Your task to perform on an android device: Search for "macbook pro" on walmart, select the first entry, and add it to the cart. Image 0: 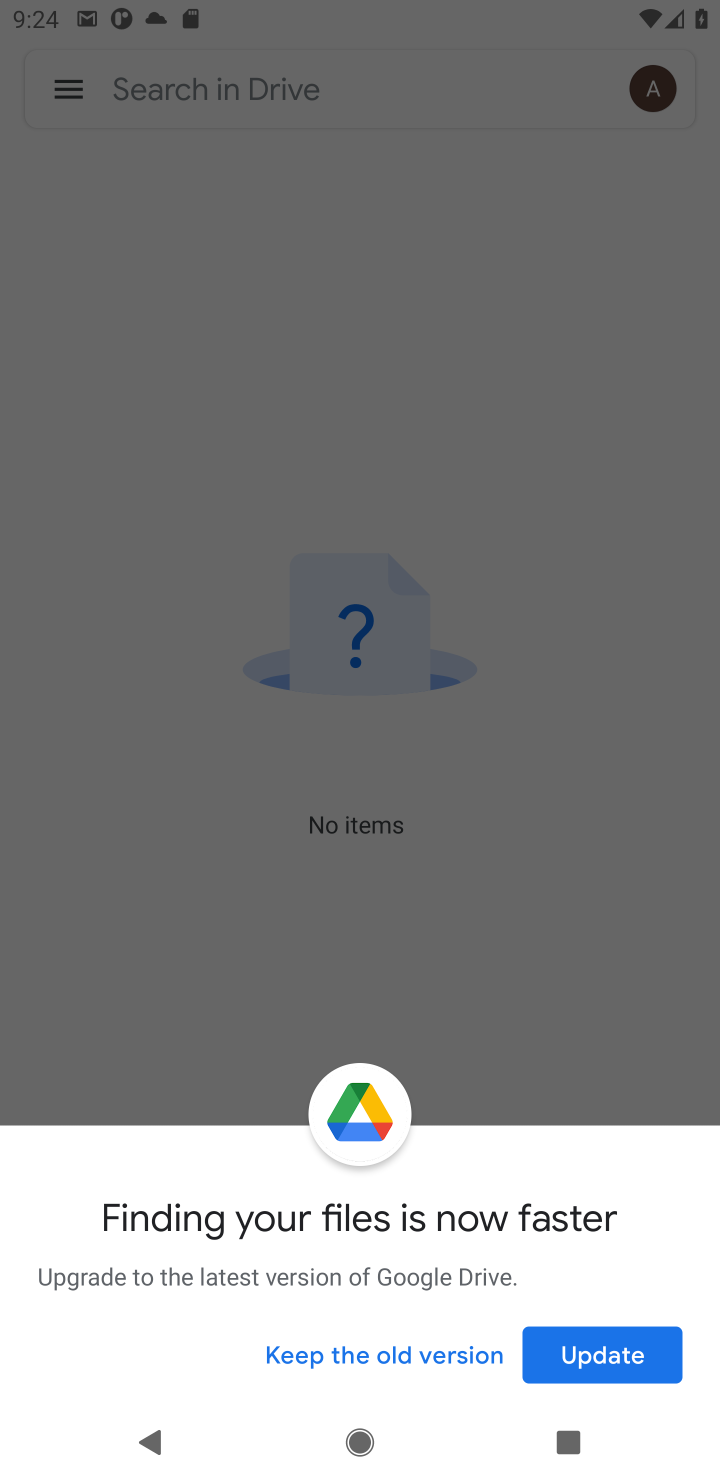
Step 0: press home button
Your task to perform on an android device: Search for "macbook pro" on walmart, select the first entry, and add it to the cart. Image 1: 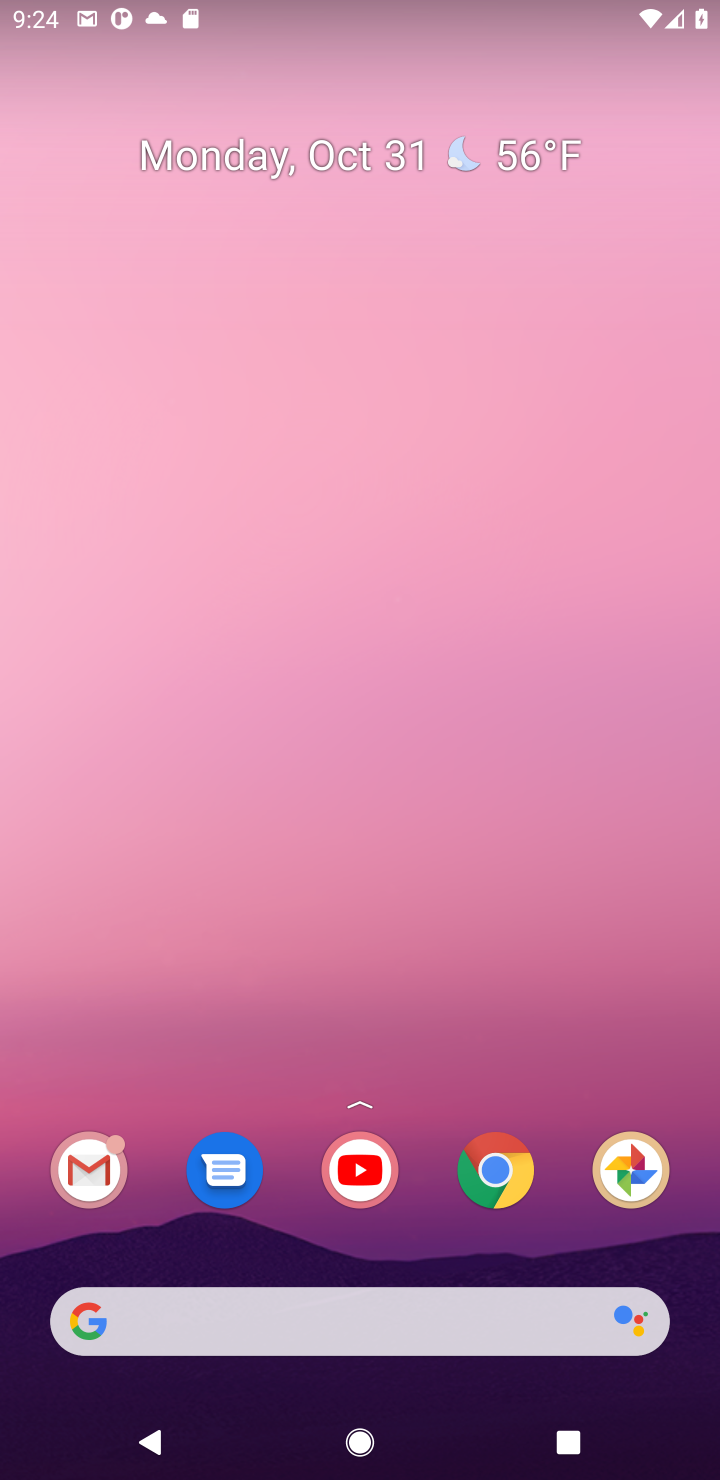
Step 1: click (488, 1165)
Your task to perform on an android device: Search for "macbook pro" on walmart, select the first entry, and add it to the cart. Image 2: 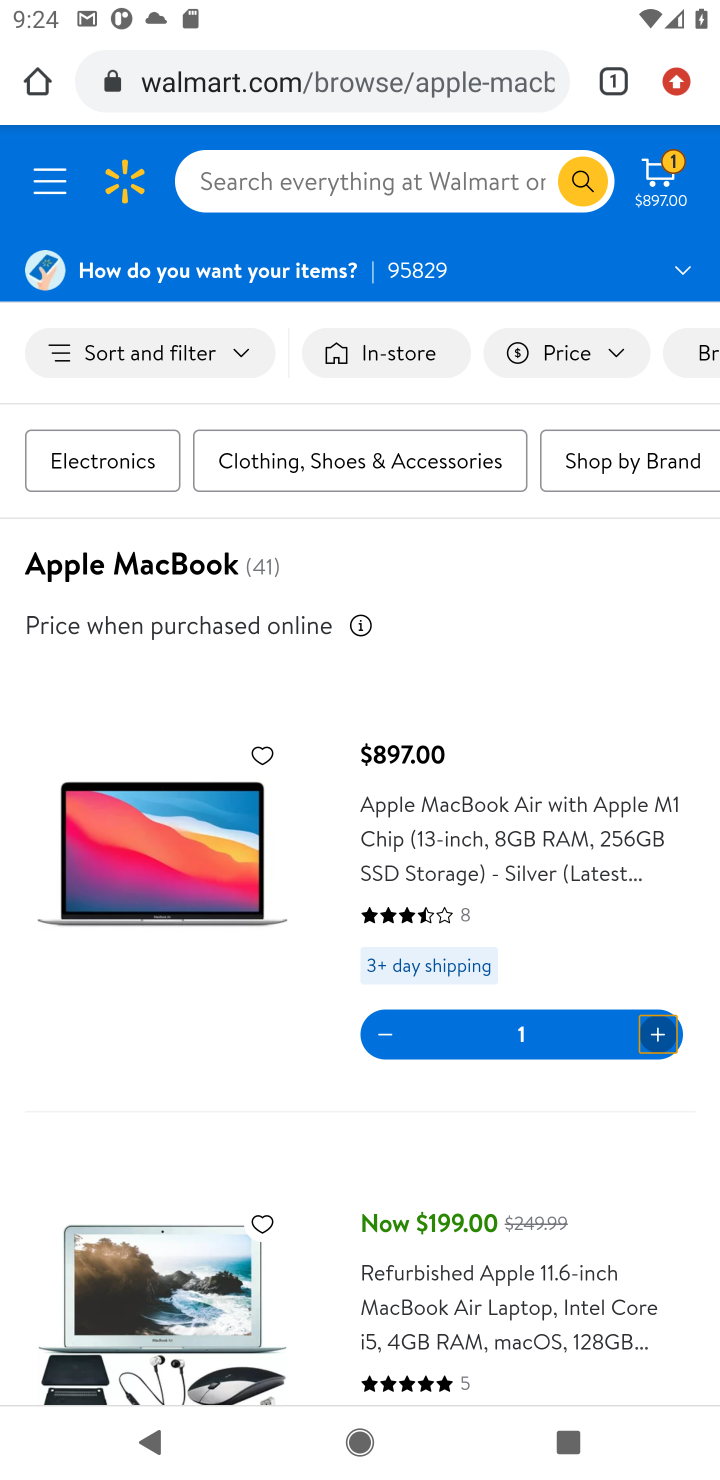
Step 2: click (248, 161)
Your task to perform on an android device: Search for "macbook pro" on walmart, select the first entry, and add it to the cart. Image 3: 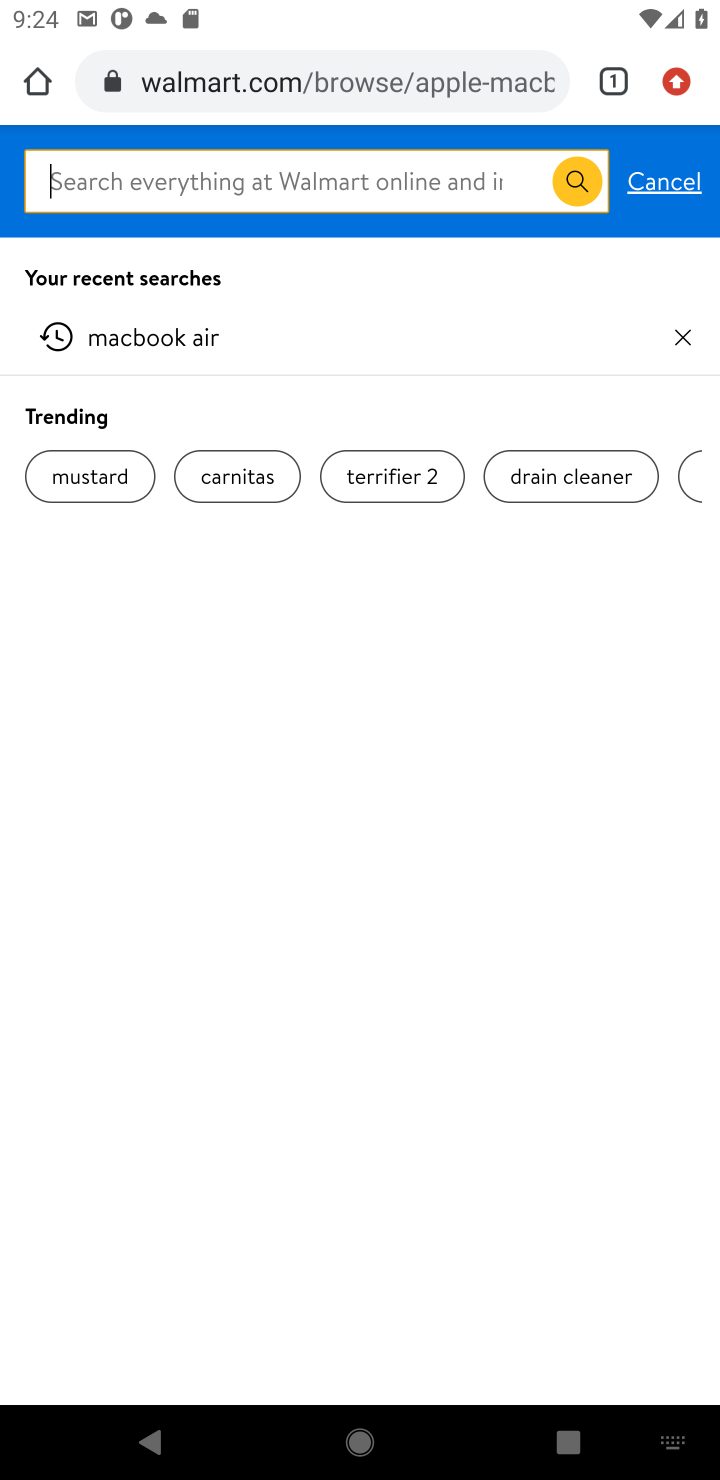
Step 3: type "macbook pro"
Your task to perform on an android device: Search for "macbook pro" on walmart, select the first entry, and add it to the cart. Image 4: 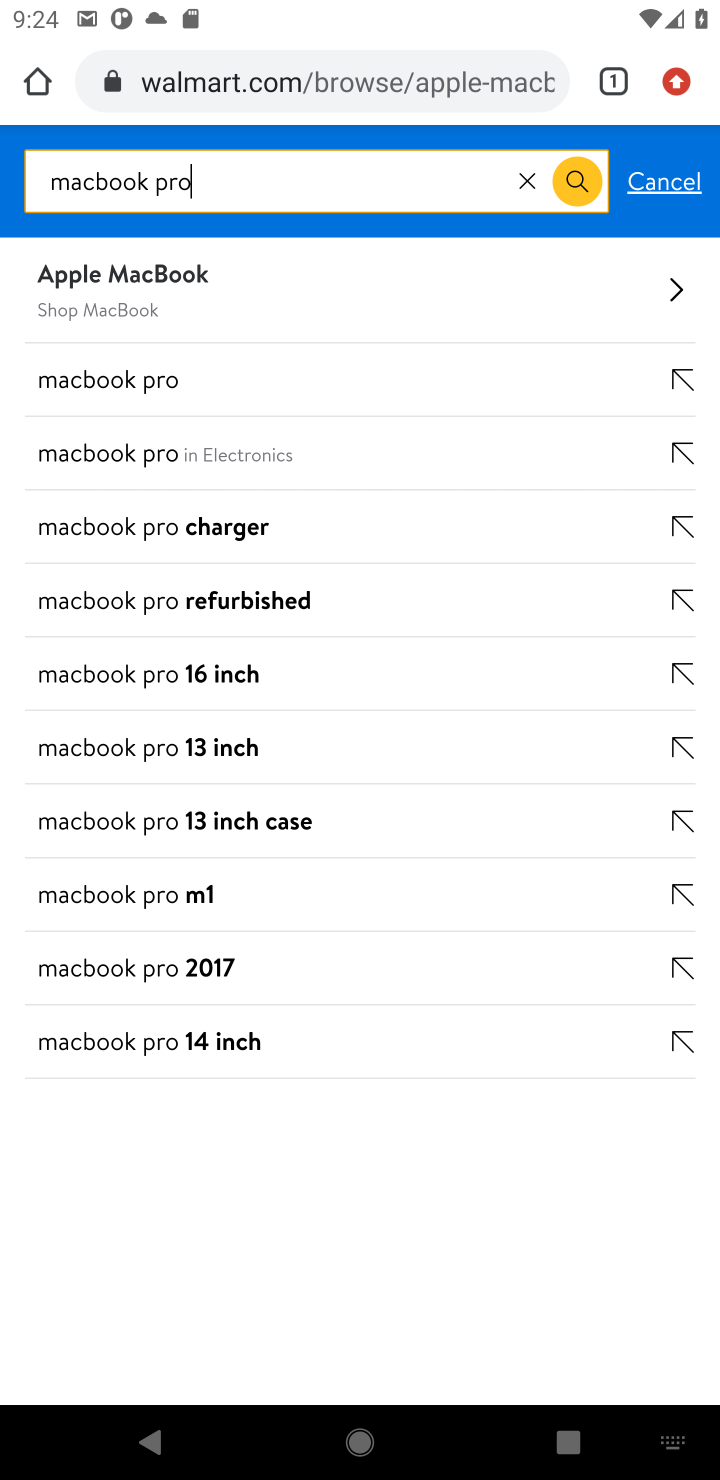
Step 4: click (273, 385)
Your task to perform on an android device: Search for "macbook pro" on walmart, select the first entry, and add it to the cart. Image 5: 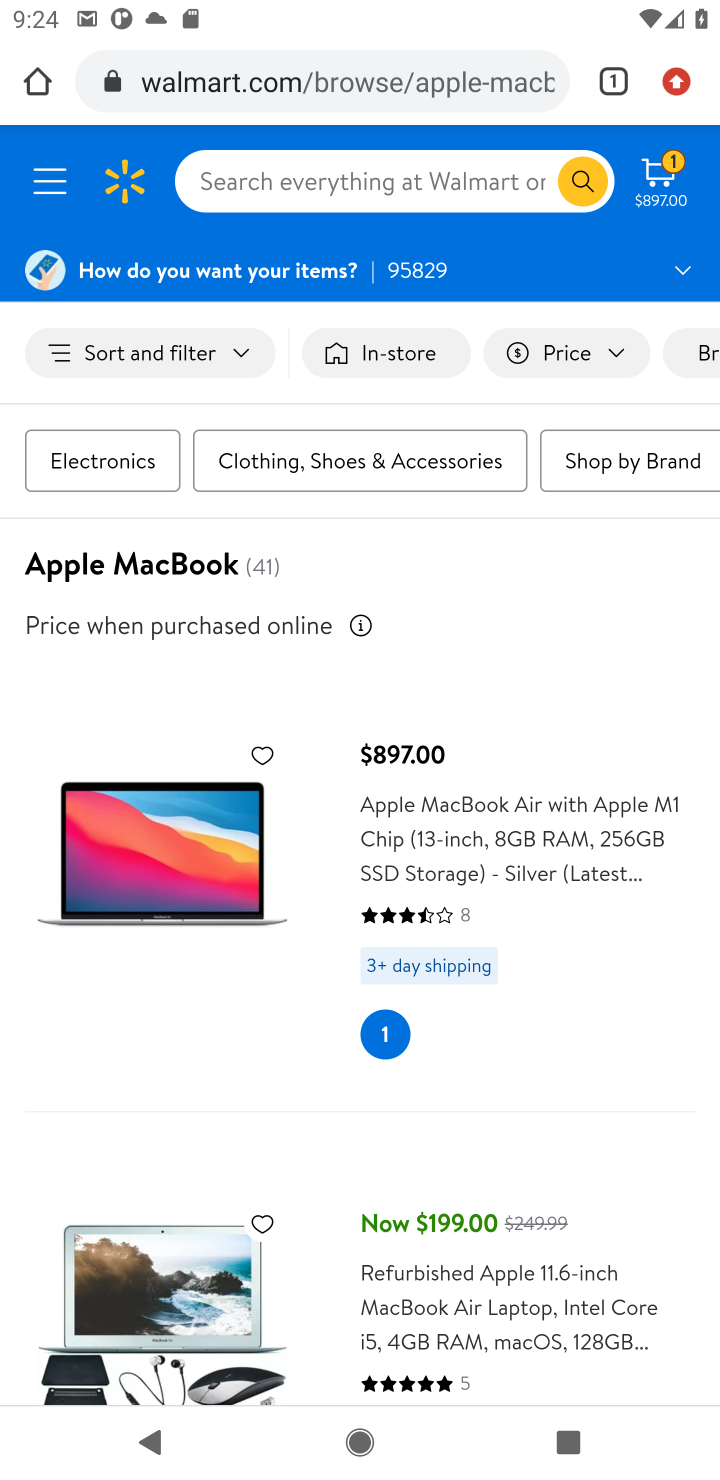
Step 5: drag from (112, 1044) to (239, 620)
Your task to perform on an android device: Search for "macbook pro" on walmart, select the first entry, and add it to the cart. Image 6: 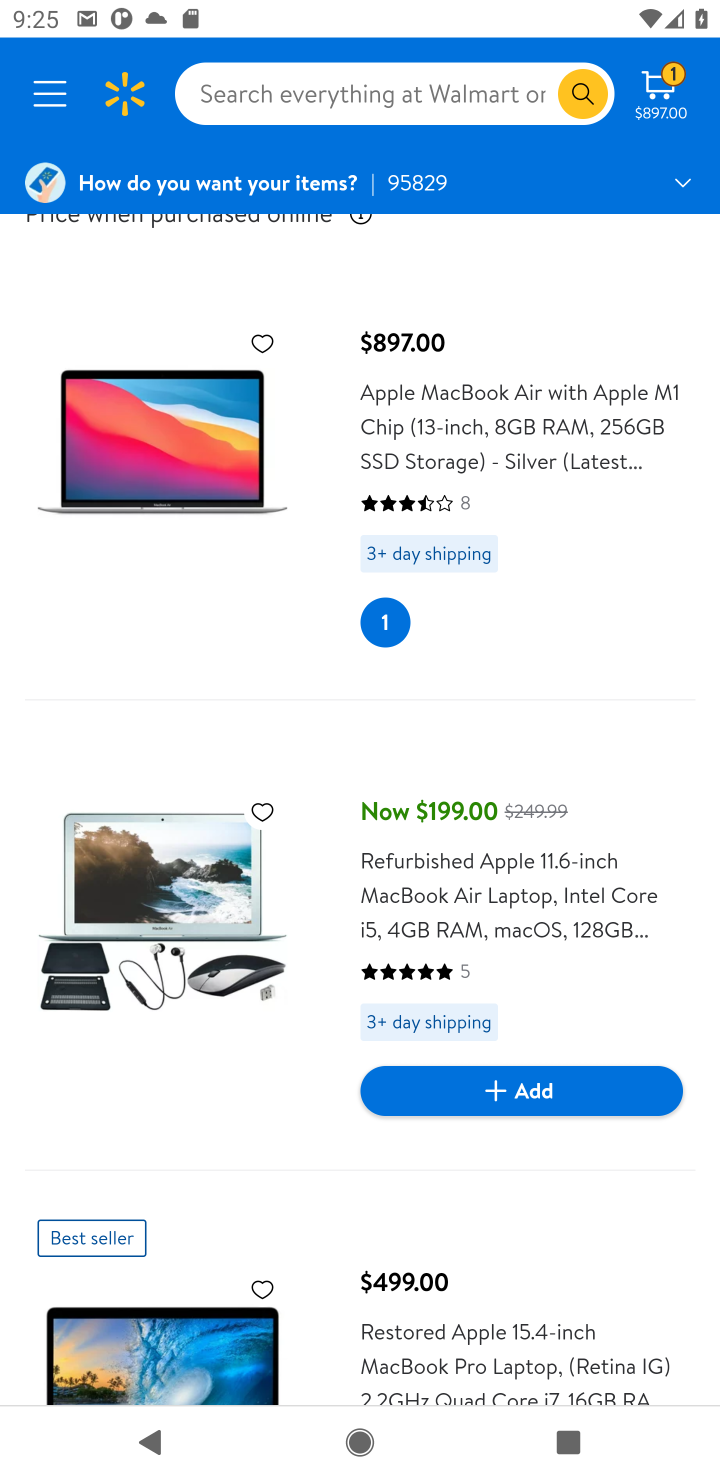
Step 6: click (397, 1354)
Your task to perform on an android device: Search for "macbook pro" on walmart, select the first entry, and add it to the cart. Image 7: 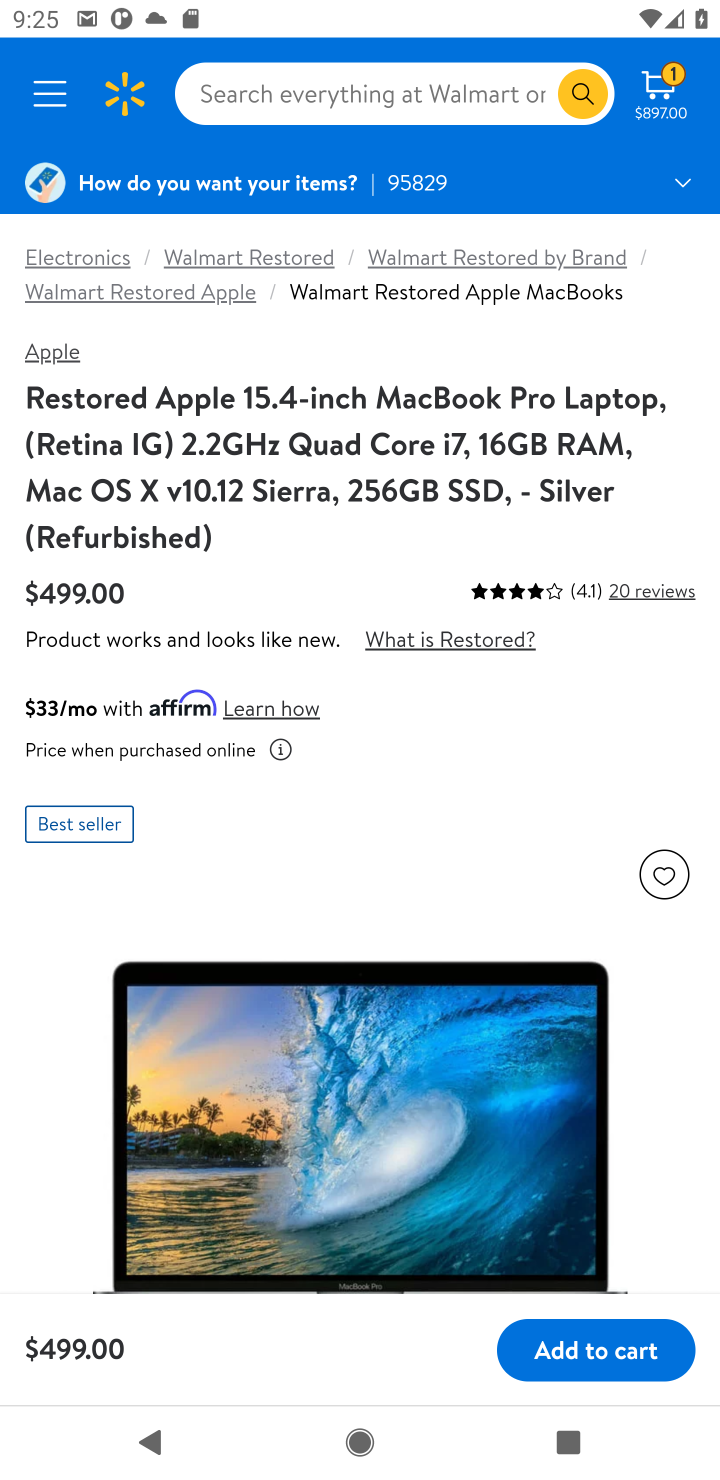
Step 7: click (570, 1350)
Your task to perform on an android device: Search for "macbook pro" on walmart, select the first entry, and add it to the cart. Image 8: 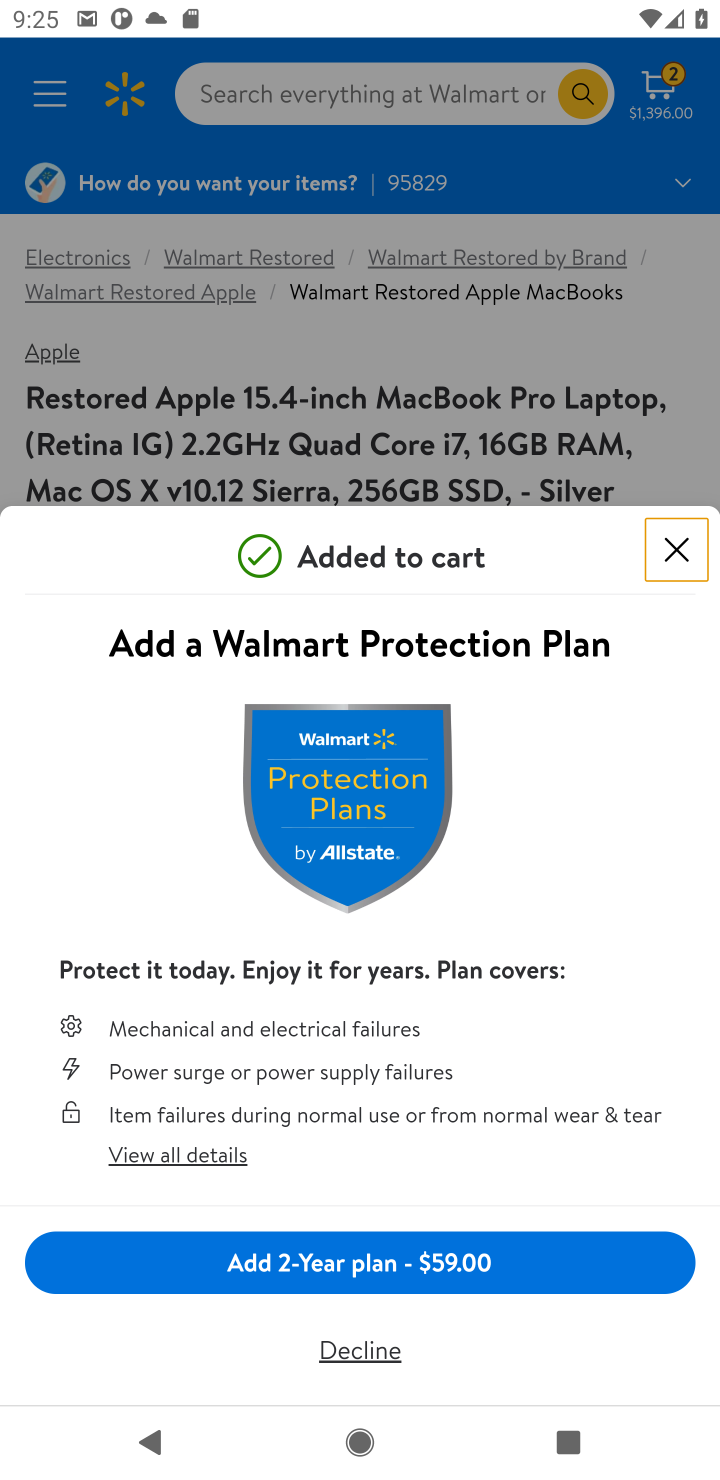
Step 8: task complete